Your task to perform on an android device: Open Reddit.com Image 0: 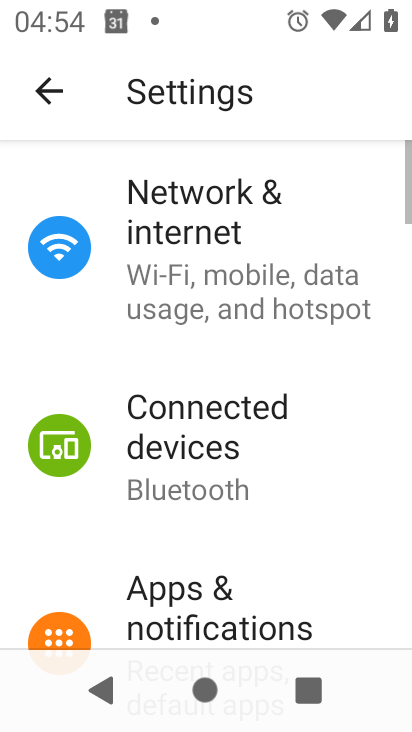
Step 0: press home button
Your task to perform on an android device: Open Reddit.com Image 1: 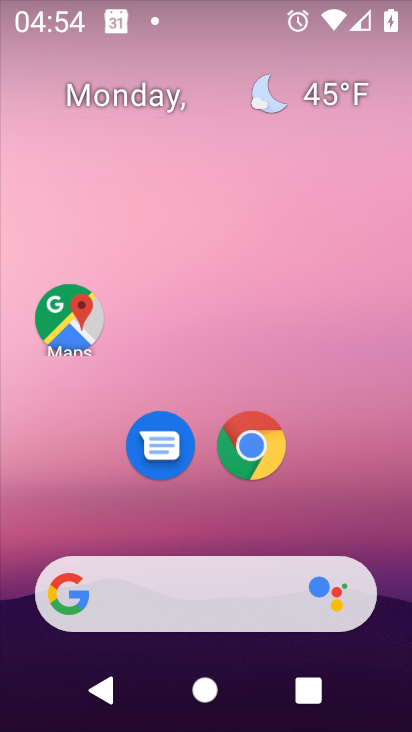
Step 1: click (249, 427)
Your task to perform on an android device: Open Reddit.com Image 2: 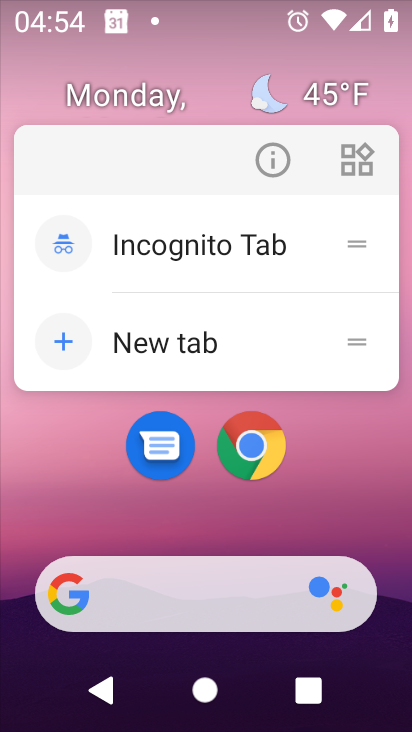
Step 2: click (250, 413)
Your task to perform on an android device: Open Reddit.com Image 3: 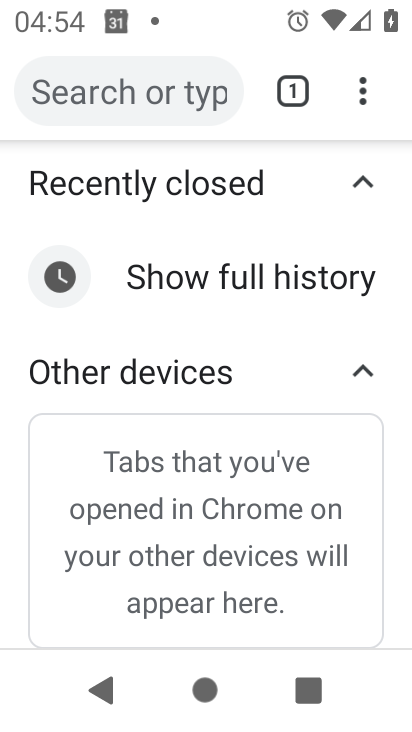
Step 3: click (175, 106)
Your task to perform on an android device: Open Reddit.com Image 4: 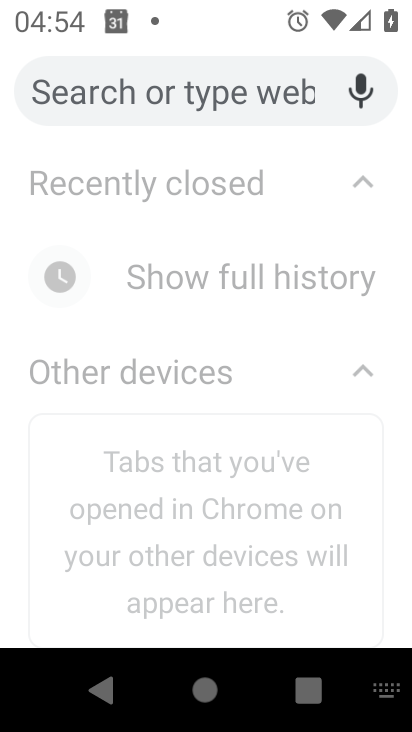
Step 4: type "reddit.com"
Your task to perform on an android device: Open Reddit.com Image 5: 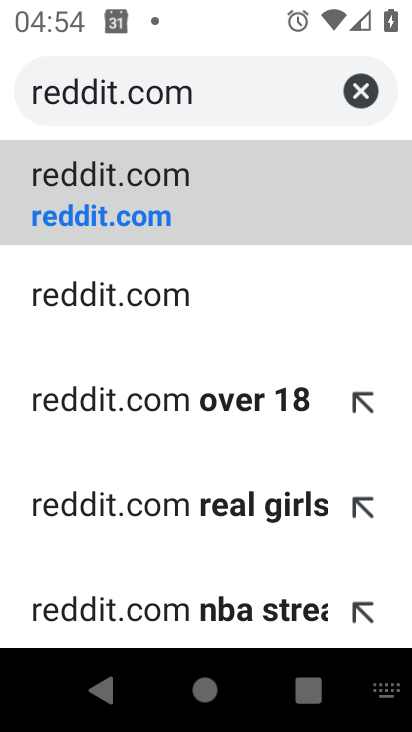
Step 5: click (52, 201)
Your task to perform on an android device: Open Reddit.com Image 6: 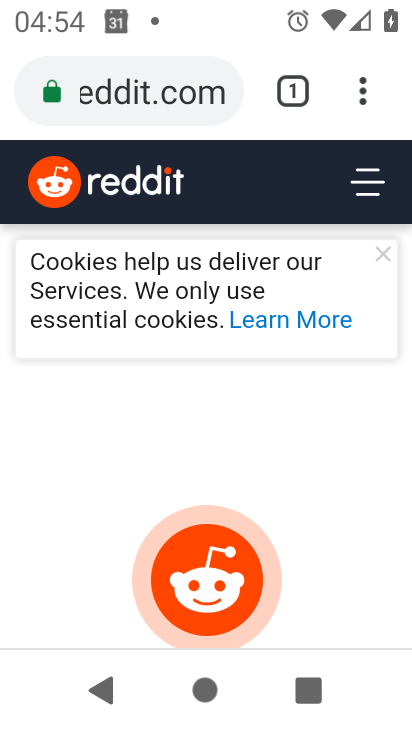
Step 6: task complete